Your task to perform on an android device: Open Google Maps and go to "Timeline" Image 0: 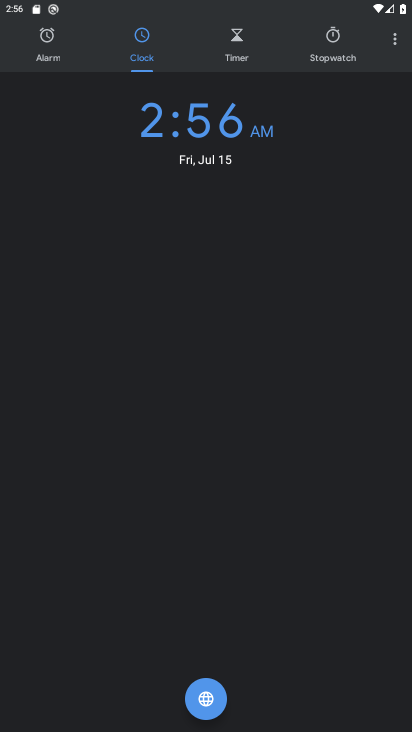
Step 0: press home button
Your task to perform on an android device: Open Google Maps and go to "Timeline" Image 1: 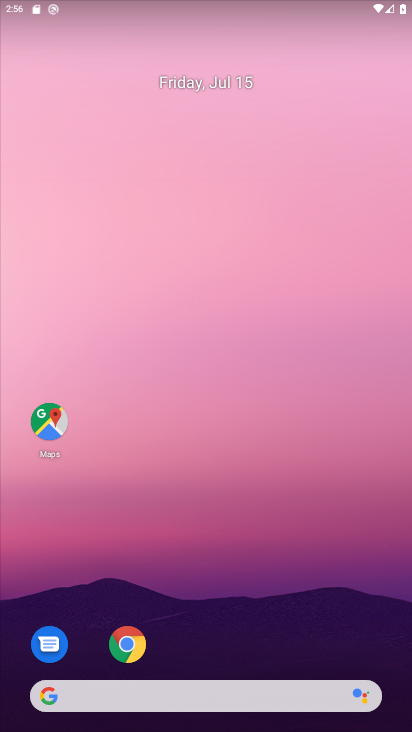
Step 1: click (54, 419)
Your task to perform on an android device: Open Google Maps and go to "Timeline" Image 2: 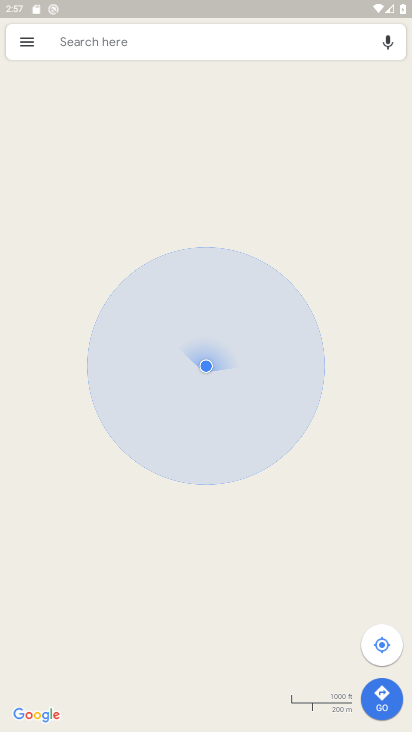
Step 2: click (36, 48)
Your task to perform on an android device: Open Google Maps and go to "Timeline" Image 3: 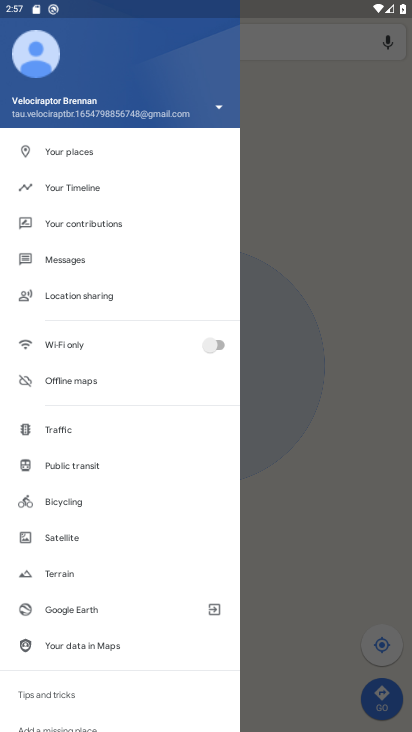
Step 3: click (87, 201)
Your task to perform on an android device: Open Google Maps and go to "Timeline" Image 4: 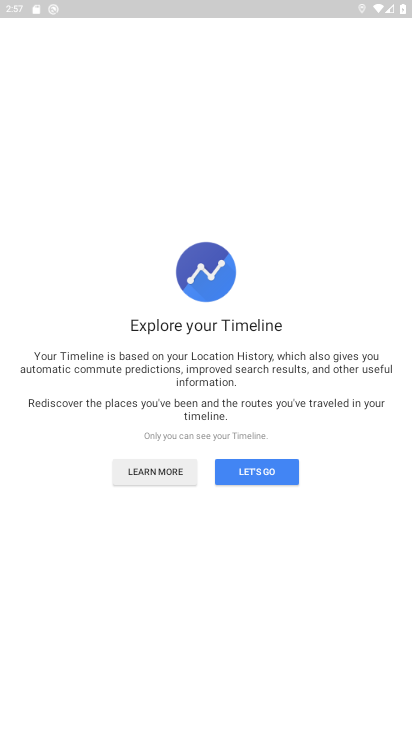
Step 4: click (267, 470)
Your task to perform on an android device: Open Google Maps and go to "Timeline" Image 5: 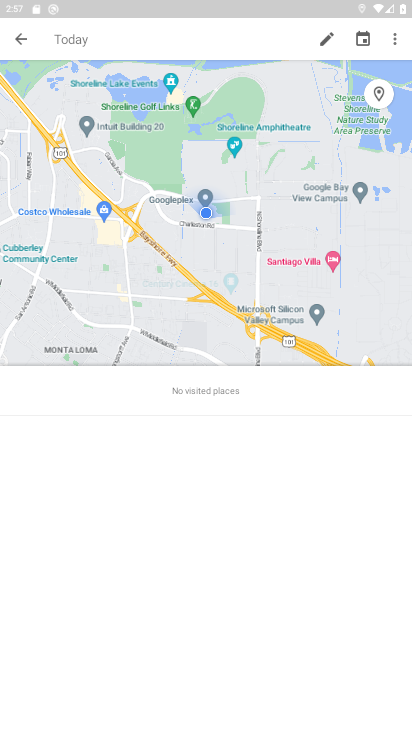
Step 5: task complete